Your task to perform on an android device: open app "Google Photos" (install if not already installed) Image 0: 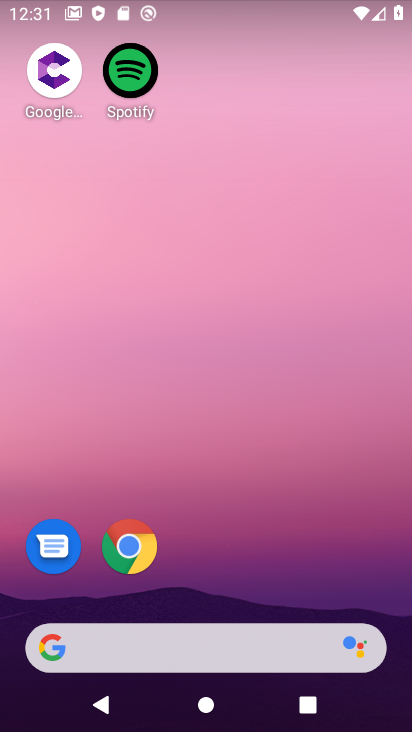
Step 0: drag from (190, 642) to (246, 23)
Your task to perform on an android device: open app "Google Photos" (install if not already installed) Image 1: 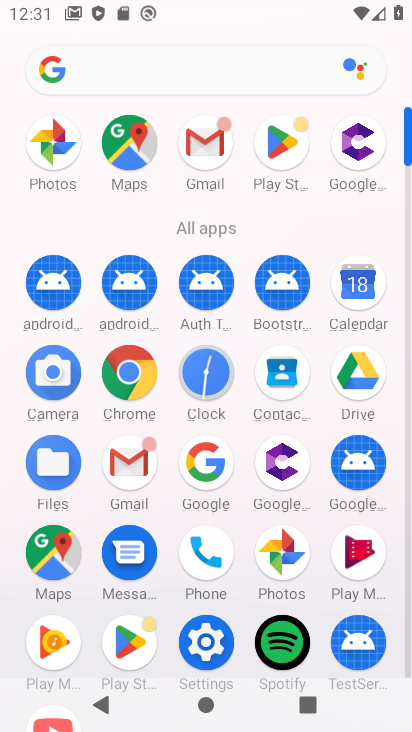
Step 1: click (277, 568)
Your task to perform on an android device: open app "Google Photos" (install if not already installed) Image 2: 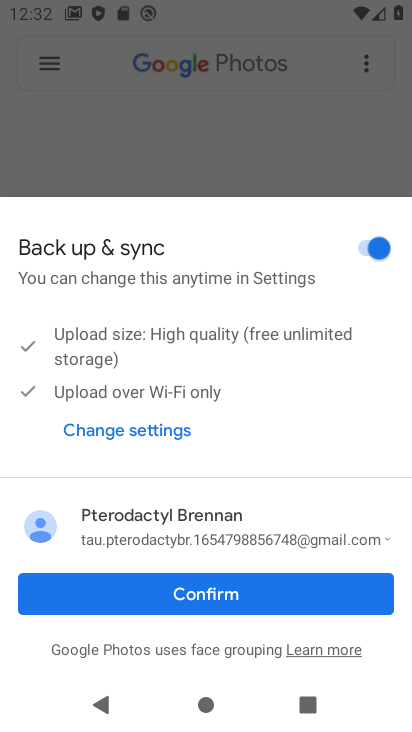
Step 2: task complete